Your task to perform on an android device: choose inbox layout in the gmail app Image 0: 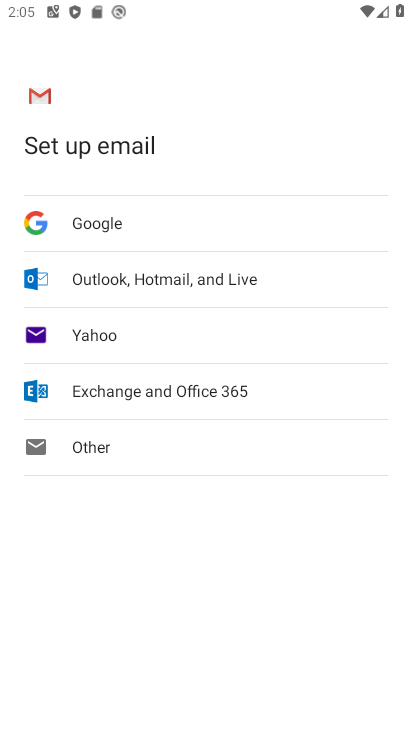
Step 0: press home button
Your task to perform on an android device: choose inbox layout in the gmail app Image 1: 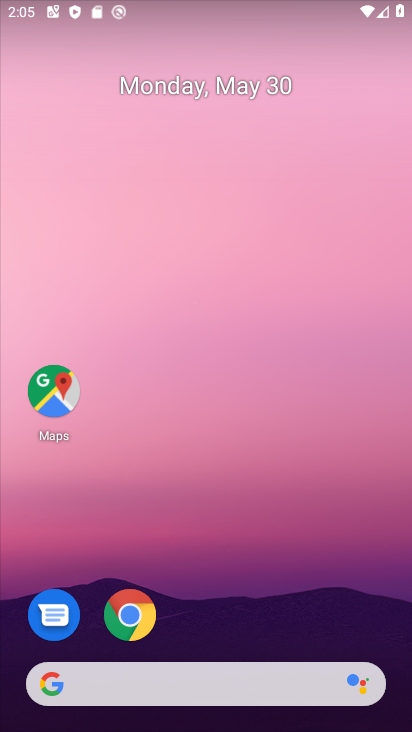
Step 1: drag from (227, 626) to (315, 66)
Your task to perform on an android device: choose inbox layout in the gmail app Image 2: 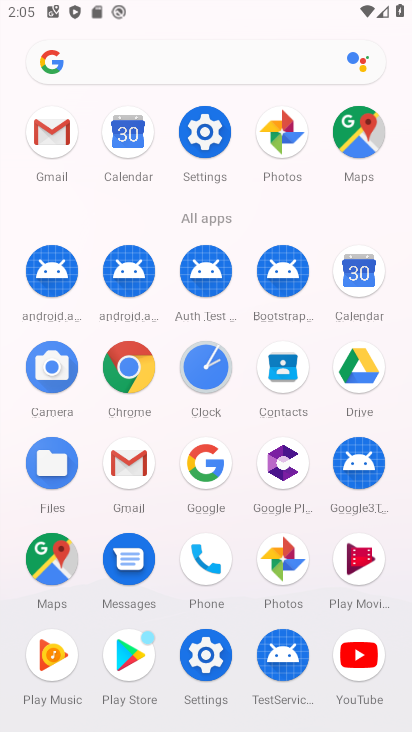
Step 2: click (123, 469)
Your task to perform on an android device: choose inbox layout in the gmail app Image 3: 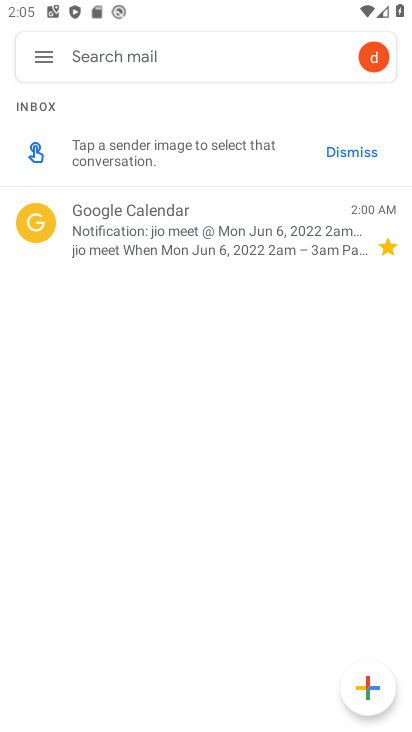
Step 3: click (47, 63)
Your task to perform on an android device: choose inbox layout in the gmail app Image 4: 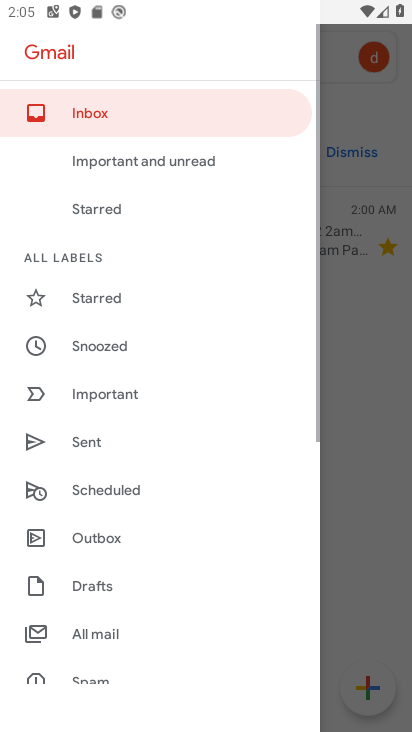
Step 4: drag from (163, 616) to (238, 298)
Your task to perform on an android device: choose inbox layout in the gmail app Image 5: 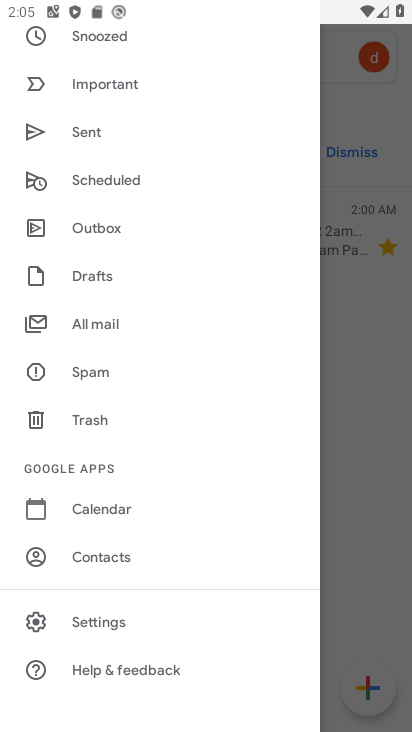
Step 5: click (220, 362)
Your task to perform on an android device: choose inbox layout in the gmail app Image 6: 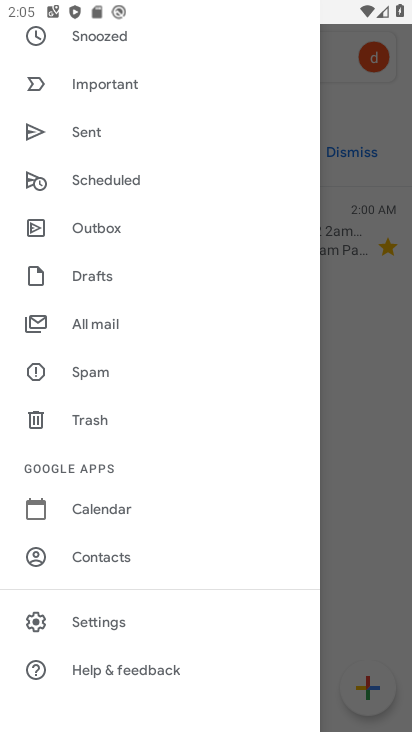
Step 6: click (169, 486)
Your task to perform on an android device: choose inbox layout in the gmail app Image 7: 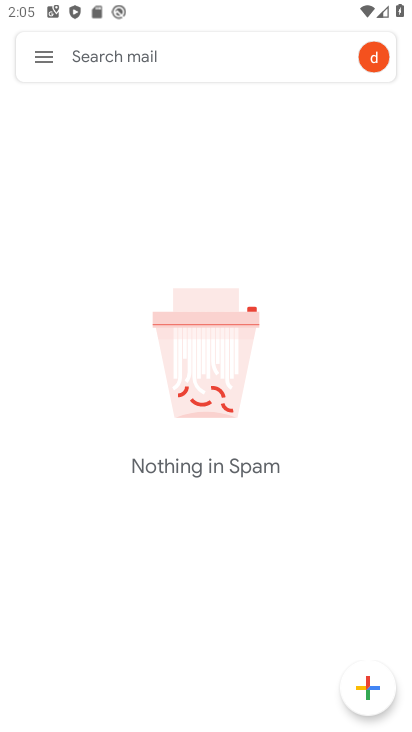
Step 7: click (43, 59)
Your task to perform on an android device: choose inbox layout in the gmail app Image 8: 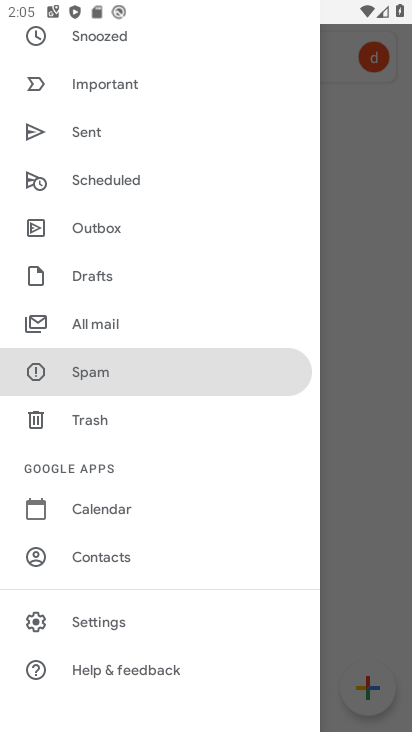
Step 8: click (145, 619)
Your task to perform on an android device: choose inbox layout in the gmail app Image 9: 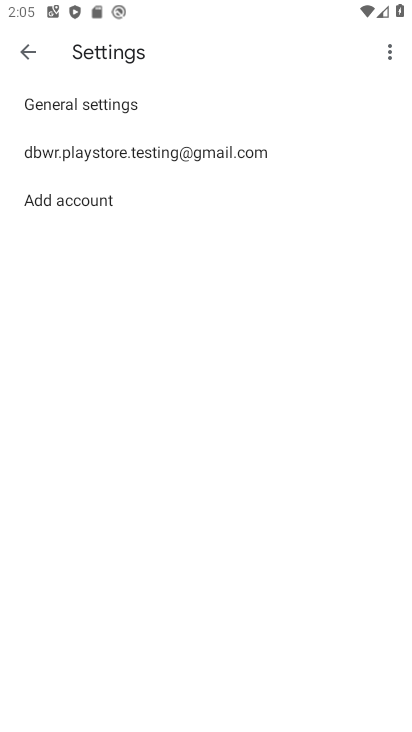
Step 9: click (296, 159)
Your task to perform on an android device: choose inbox layout in the gmail app Image 10: 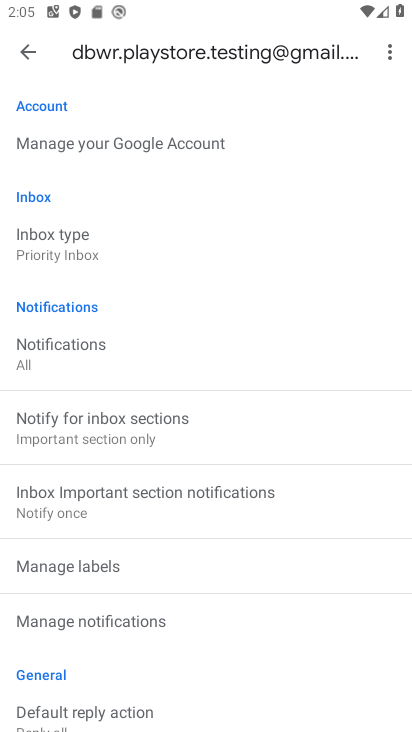
Step 10: click (169, 243)
Your task to perform on an android device: choose inbox layout in the gmail app Image 11: 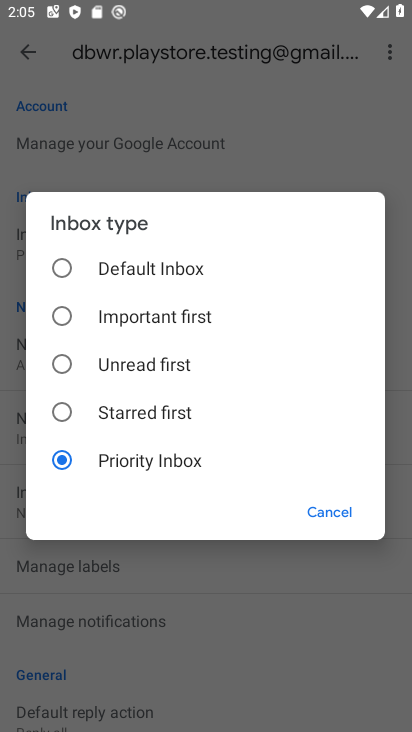
Step 11: click (177, 370)
Your task to perform on an android device: choose inbox layout in the gmail app Image 12: 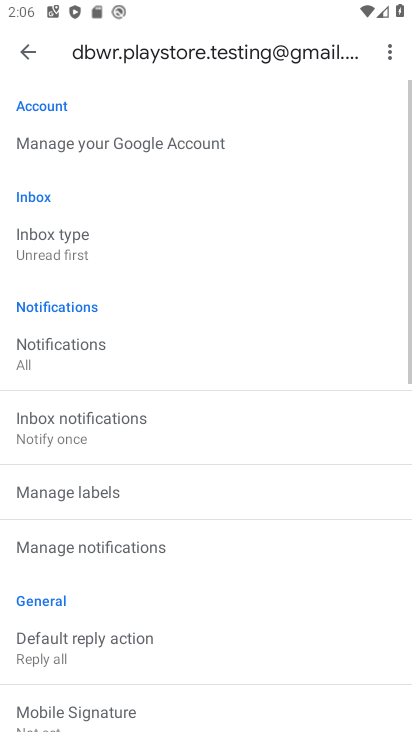
Step 12: task complete